Your task to perform on an android device: snooze an email in the gmail app Image 0: 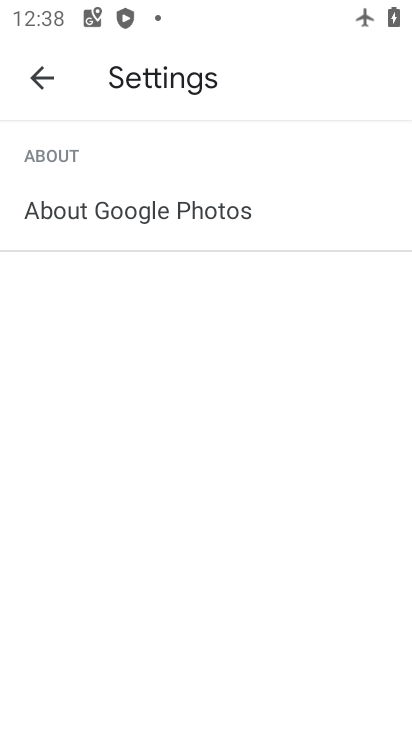
Step 0: press home button
Your task to perform on an android device: snooze an email in the gmail app Image 1: 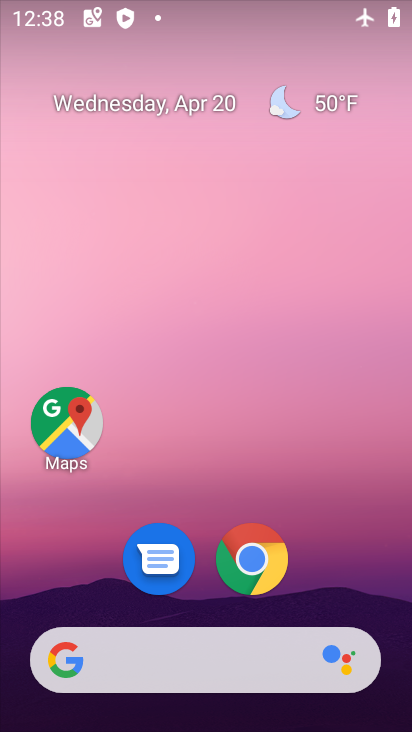
Step 1: drag from (328, 525) to (328, 67)
Your task to perform on an android device: snooze an email in the gmail app Image 2: 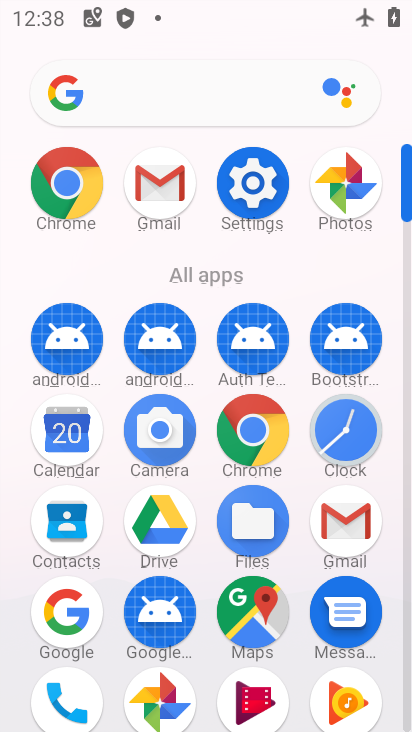
Step 2: click (166, 203)
Your task to perform on an android device: snooze an email in the gmail app Image 3: 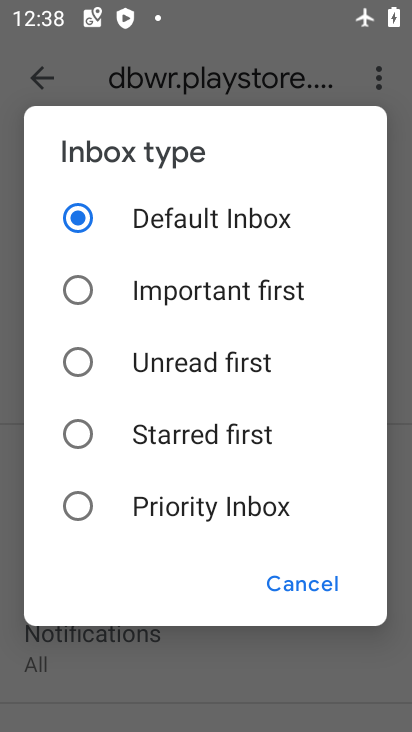
Step 3: press home button
Your task to perform on an android device: snooze an email in the gmail app Image 4: 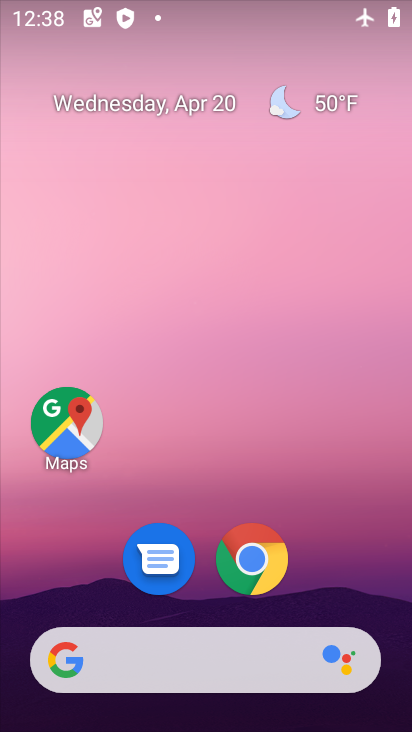
Step 4: drag from (325, 583) to (324, 199)
Your task to perform on an android device: snooze an email in the gmail app Image 5: 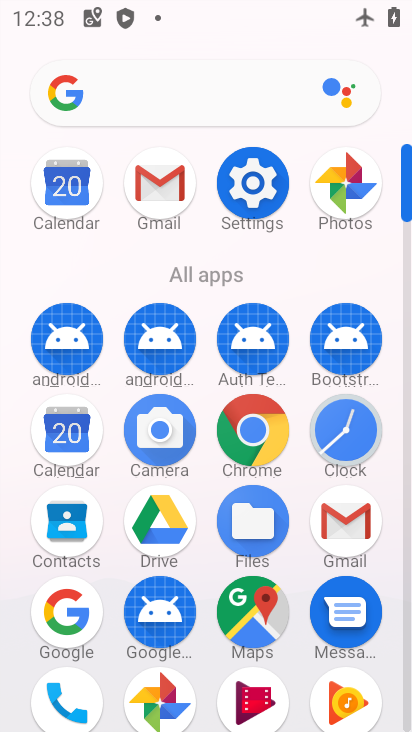
Step 5: click (172, 212)
Your task to perform on an android device: snooze an email in the gmail app Image 6: 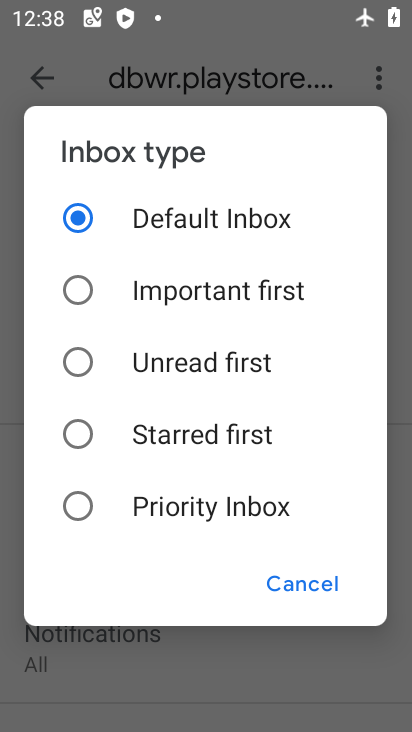
Step 6: click (51, 79)
Your task to perform on an android device: snooze an email in the gmail app Image 7: 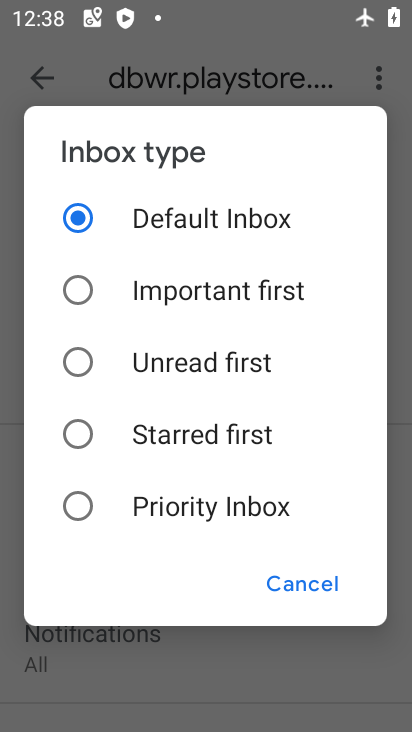
Step 7: click (293, 580)
Your task to perform on an android device: snooze an email in the gmail app Image 8: 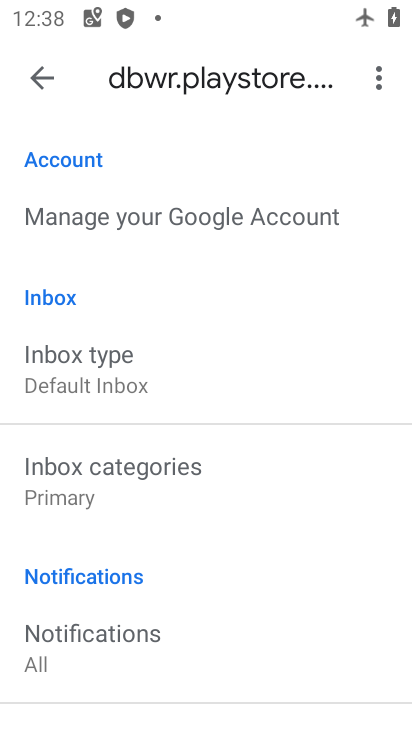
Step 8: click (52, 82)
Your task to perform on an android device: snooze an email in the gmail app Image 9: 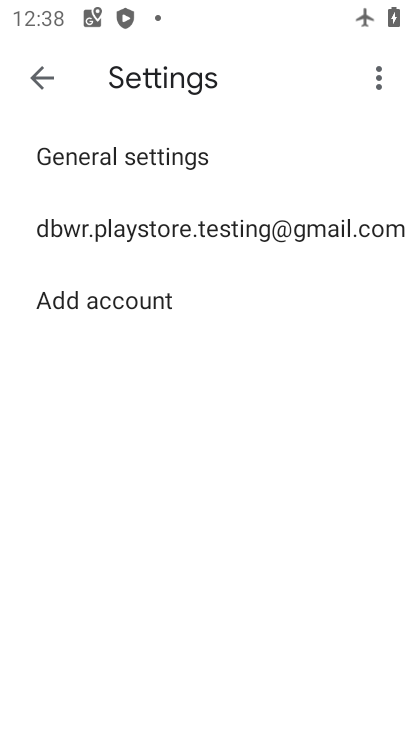
Step 9: click (43, 83)
Your task to perform on an android device: snooze an email in the gmail app Image 10: 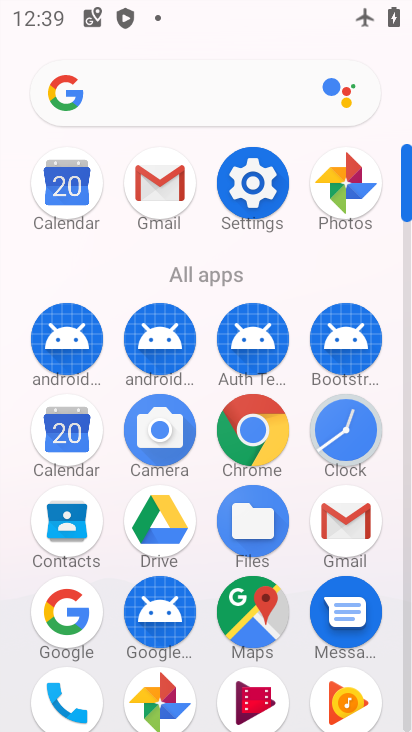
Step 10: click (170, 188)
Your task to perform on an android device: snooze an email in the gmail app Image 11: 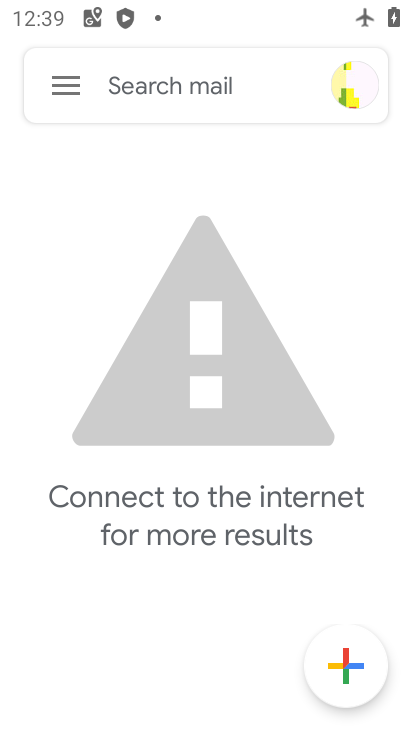
Step 11: click (64, 92)
Your task to perform on an android device: snooze an email in the gmail app Image 12: 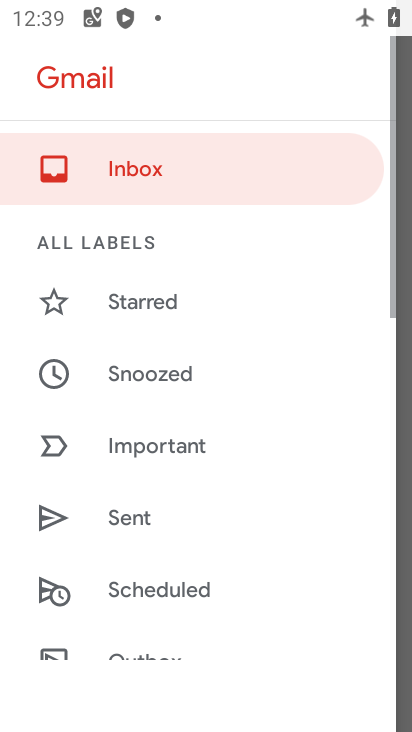
Step 12: click (86, 163)
Your task to perform on an android device: snooze an email in the gmail app Image 13: 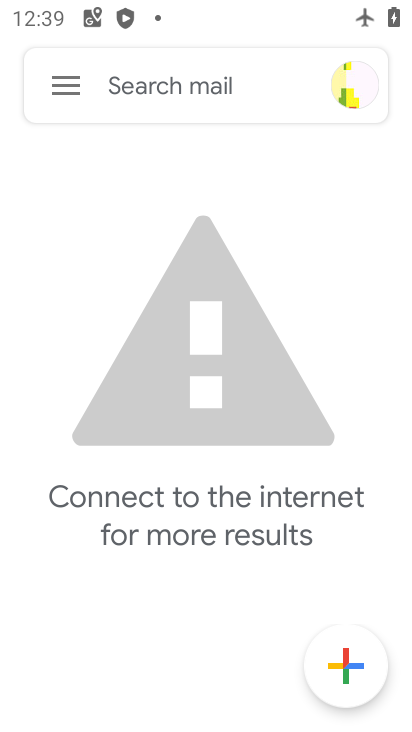
Step 13: task complete